Your task to perform on an android device: turn on airplane mode Image 0: 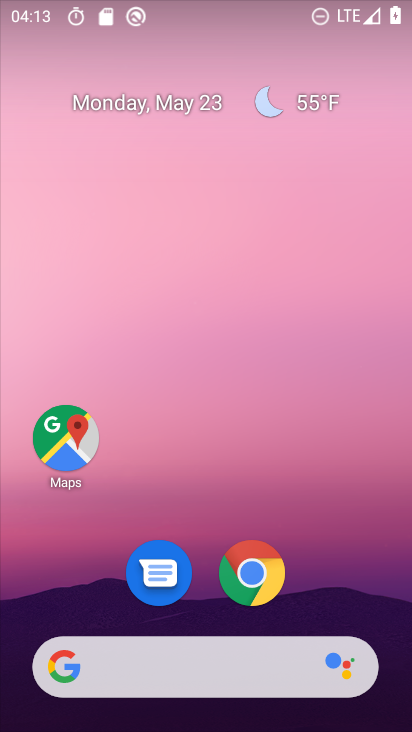
Step 0: drag from (332, 582) to (302, 40)
Your task to perform on an android device: turn on airplane mode Image 1: 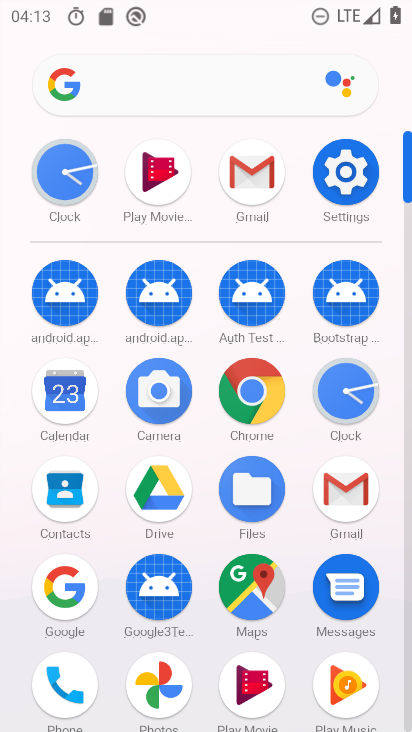
Step 1: click (362, 175)
Your task to perform on an android device: turn on airplane mode Image 2: 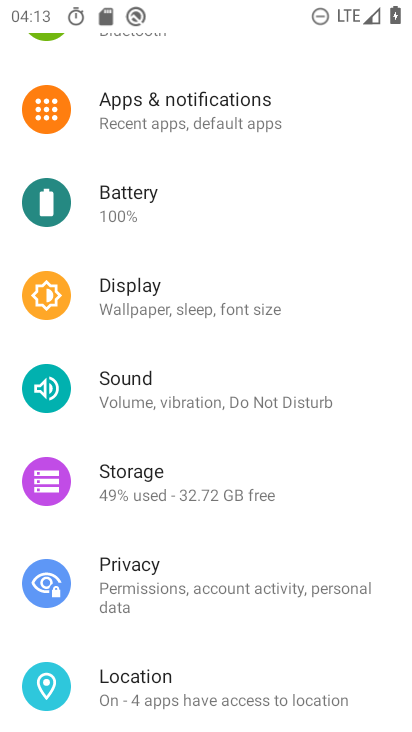
Step 2: drag from (228, 190) to (213, 624)
Your task to perform on an android device: turn on airplane mode Image 3: 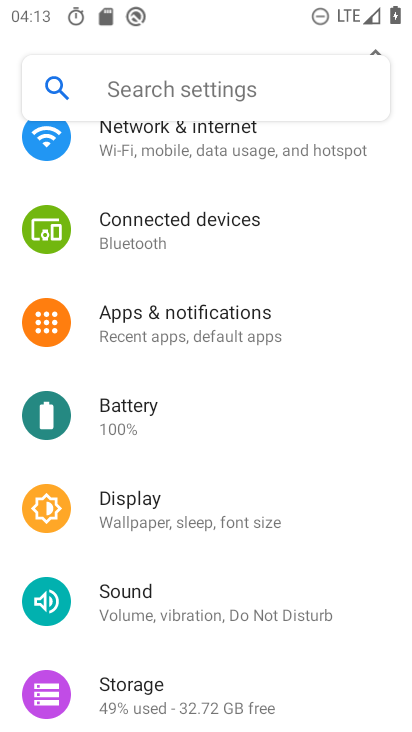
Step 3: click (216, 144)
Your task to perform on an android device: turn on airplane mode Image 4: 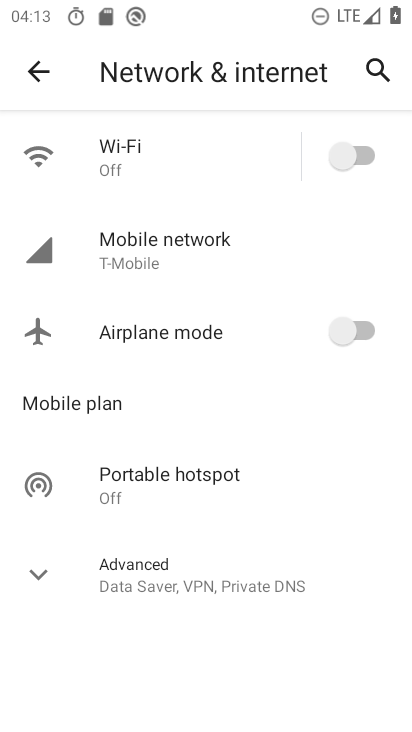
Step 4: click (370, 331)
Your task to perform on an android device: turn on airplane mode Image 5: 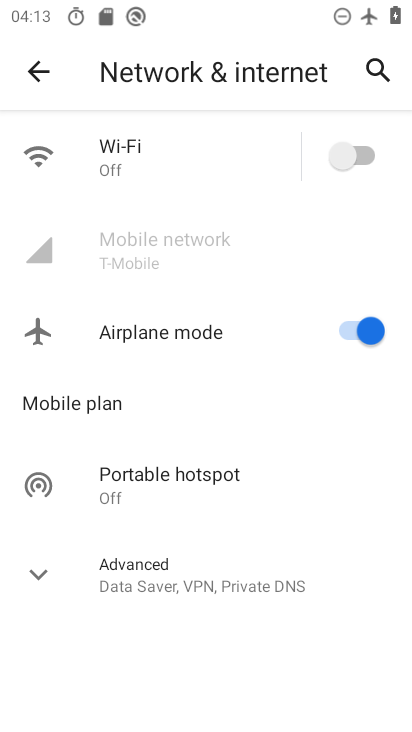
Step 5: task complete